Your task to perform on an android device: When is my next appointment? Image 0: 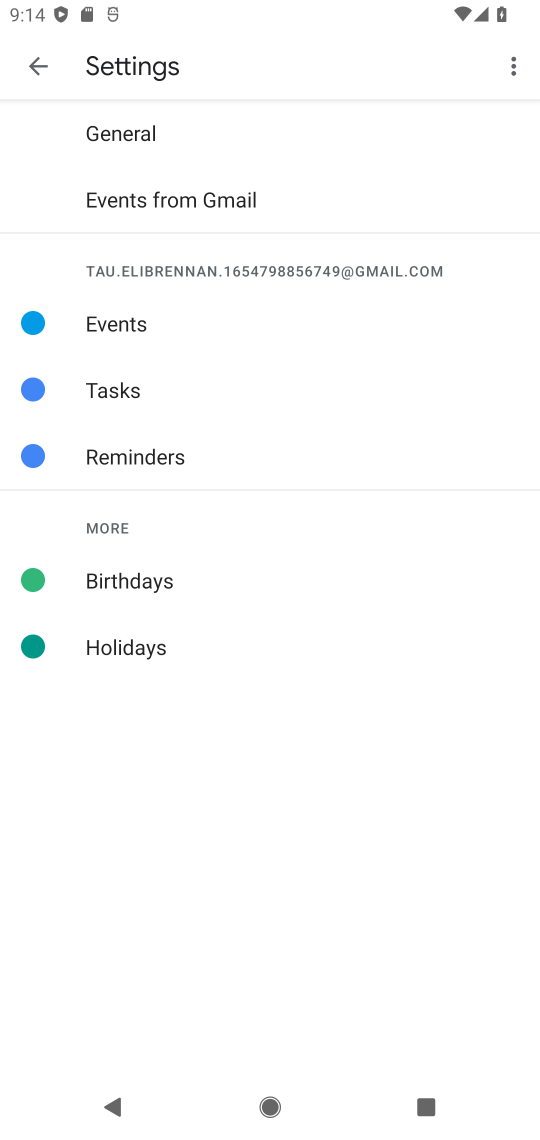
Step 0: press back button
Your task to perform on an android device: When is my next appointment? Image 1: 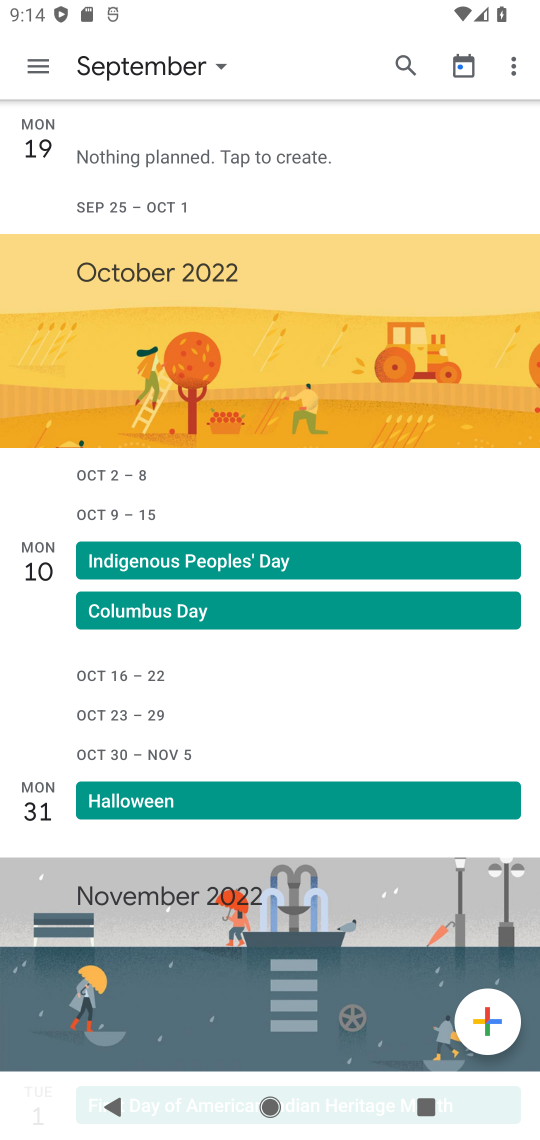
Step 1: task complete